Your task to perform on an android device: Open Google Image 0: 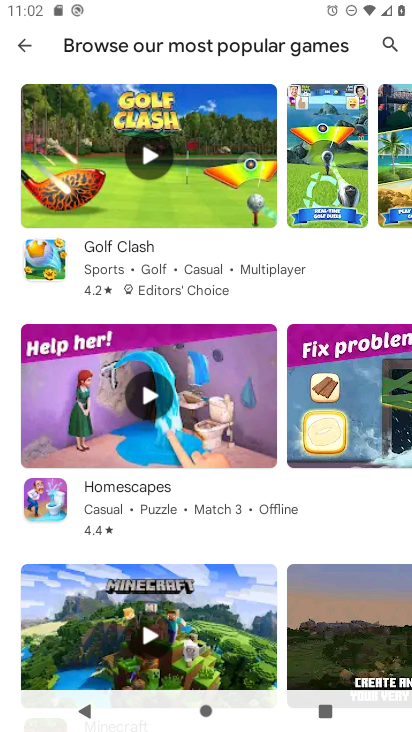
Step 0: press home button
Your task to perform on an android device: Open Google Image 1: 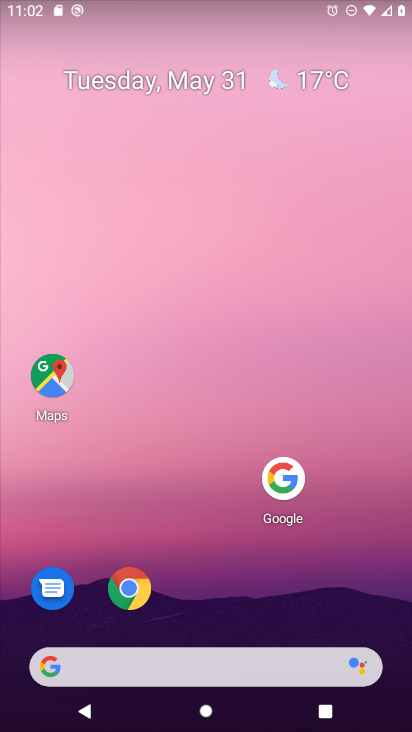
Step 1: drag from (198, 677) to (293, 95)
Your task to perform on an android device: Open Google Image 2: 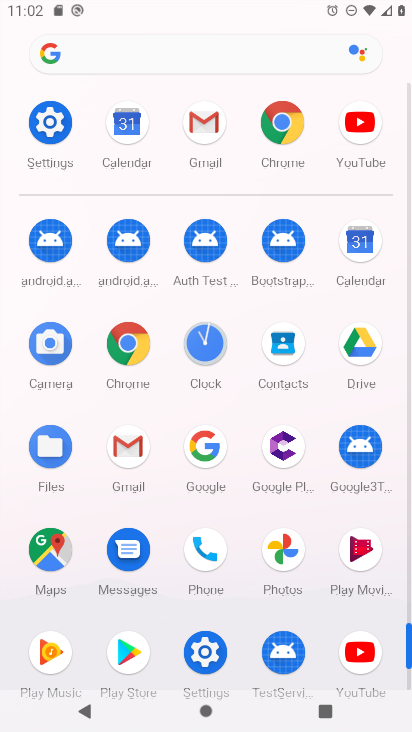
Step 2: click (210, 451)
Your task to perform on an android device: Open Google Image 3: 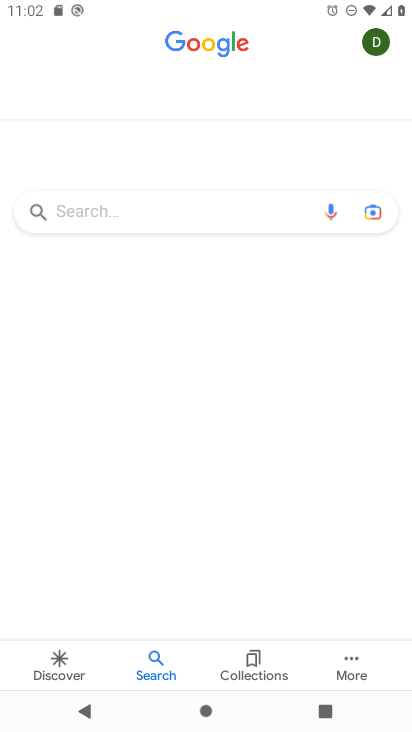
Step 3: click (63, 671)
Your task to perform on an android device: Open Google Image 4: 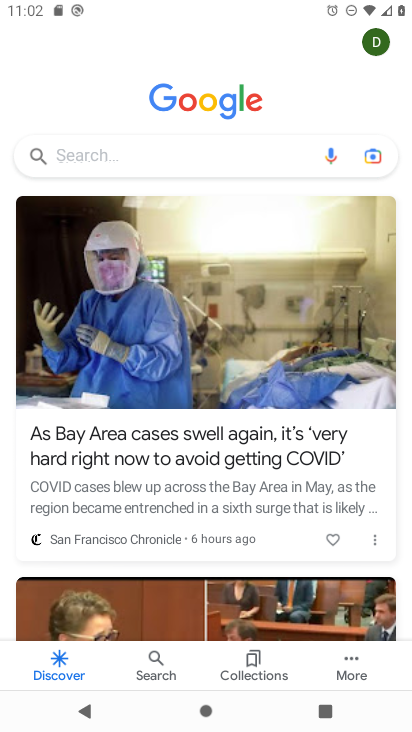
Step 4: task complete